Your task to perform on an android device: turn on bluetooth scan Image 0: 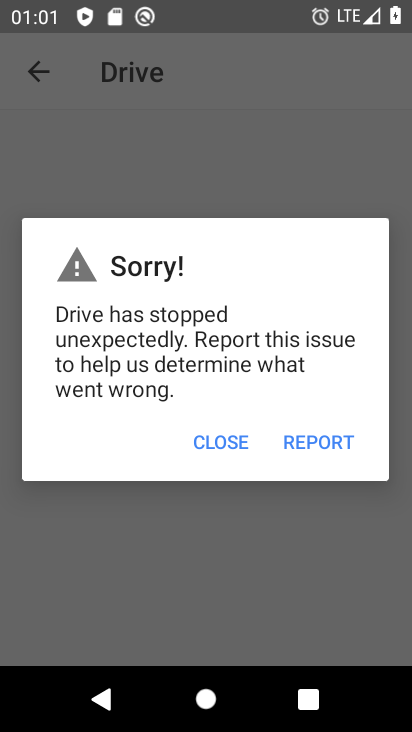
Step 0: press home button
Your task to perform on an android device: turn on bluetooth scan Image 1: 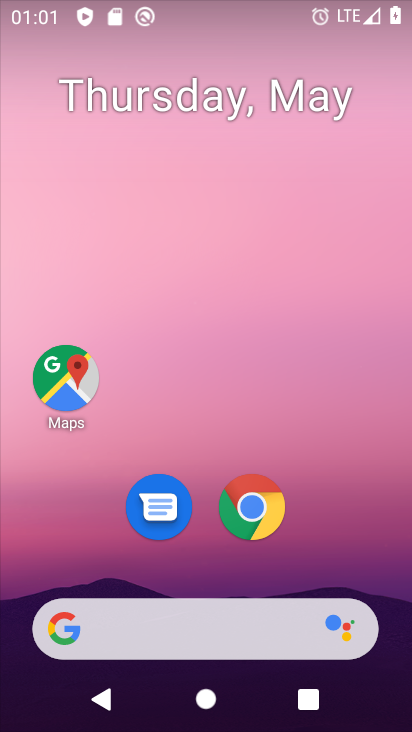
Step 1: drag from (208, 576) to (241, 285)
Your task to perform on an android device: turn on bluetooth scan Image 2: 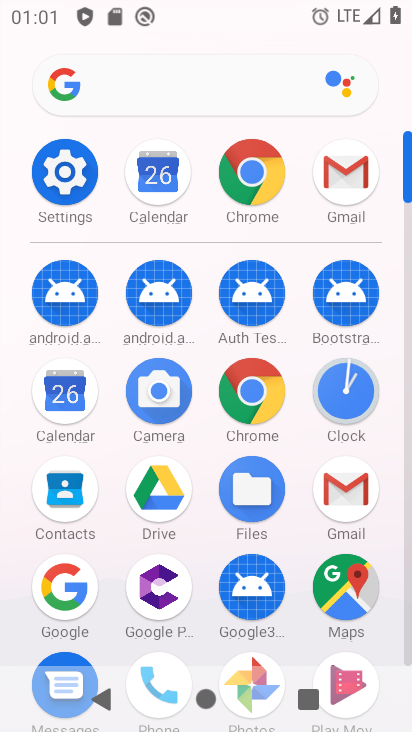
Step 2: click (60, 188)
Your task to perform on an android device: turn on bluetooth scan Image 3: 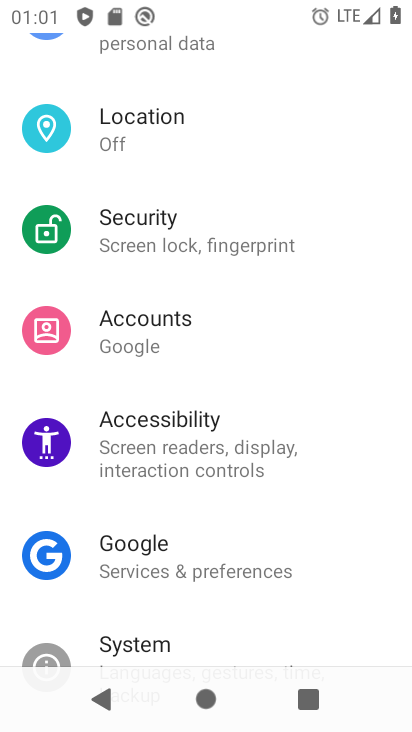
Step 3: drag from (245, 247) to (251, 519)
Your task to perform on an android device: turn on bluetooth scan Image 4: 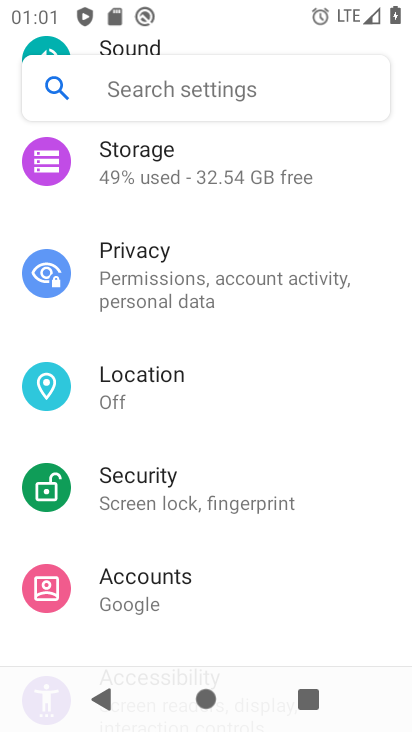
Step 4: drag from (229, 259) to (229, 459)
Your task to perform on an android device: turn on bluetooth scan Image 5: 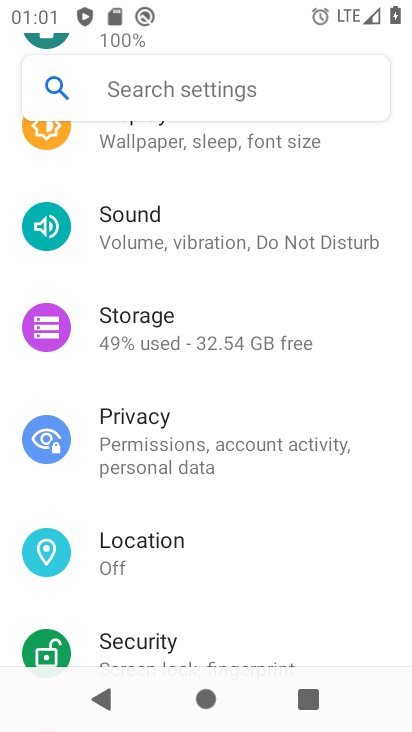
Step 5: click (214, 533)
Your task to perform on an android device: turn on bluetooth scan Image 6: 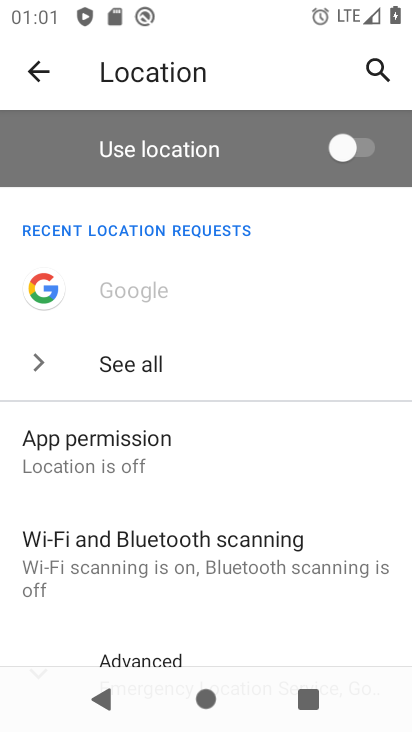
Step 6: click (238, 558)
Your task to perform on an android device: turn on bluetooth scan Image 7: 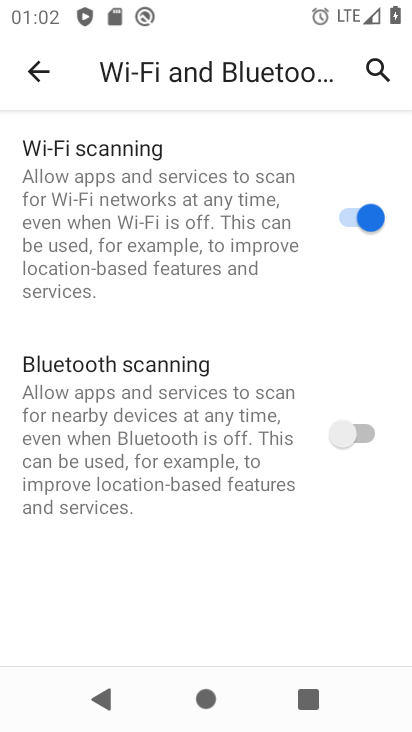
Step 7: click (364, 420)
Your task to perform on an android device: turn on bluetooth scan Image 8: 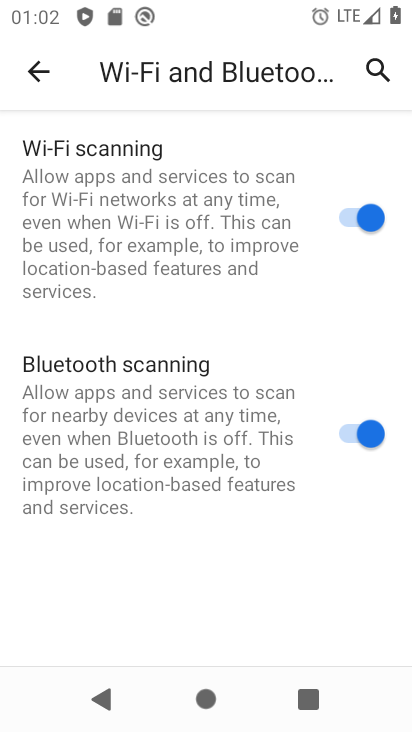
Step 8: task complete